Your task to perform on an android device: Set the phone to "Do not disturb". Image 0: 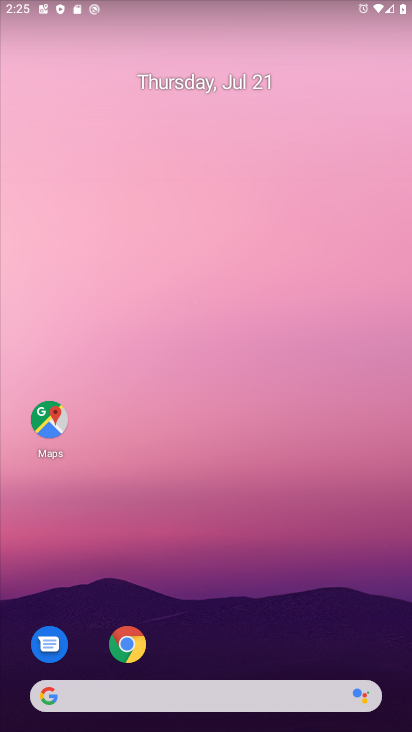
Step 0: drag from (168, 676) to (220, 283)
Your task to perform on an android device: Set the phone to "Do not disturb". Image 1: 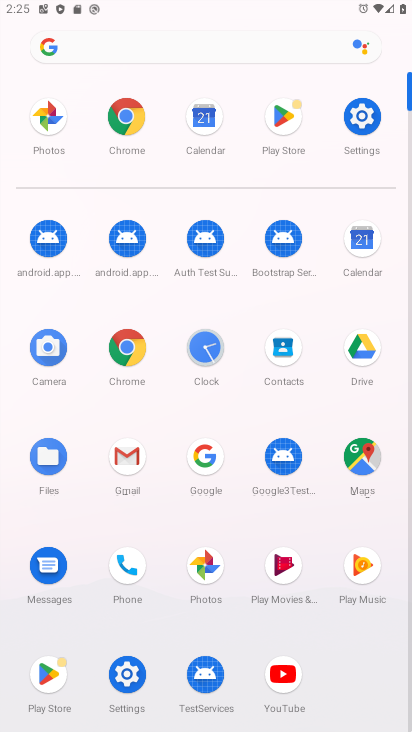
Step 1: click (359, 135)
Your task to perform on an android device: Set the phone to "Do not disturb". Image 2: 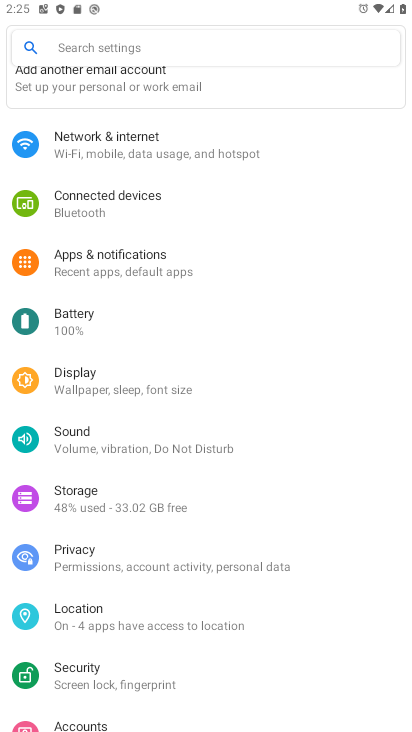
Step 2: click (109, 438)
Your task to perform on an android device: Set the phone to "Do not disturb". Image 3: 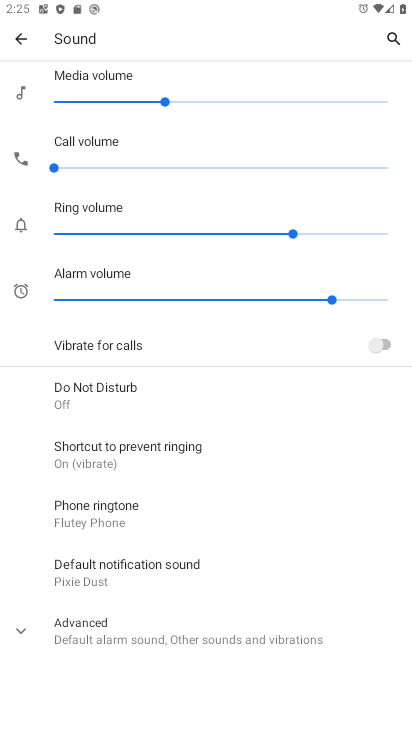
Step 3: click (137, 394)
Your task to perform on an android device: Set the phone to "Do not disturb". Image 4: 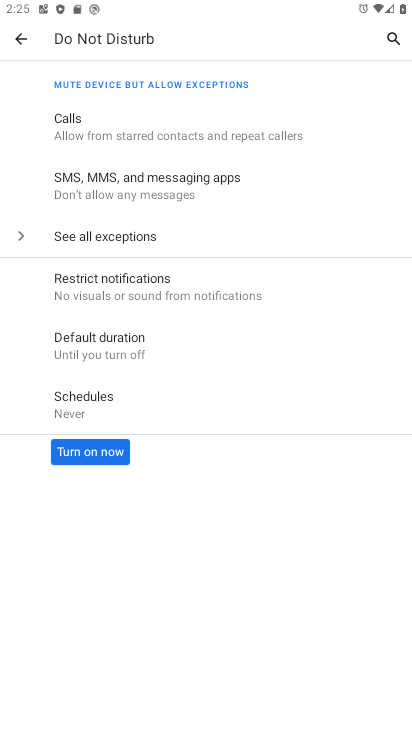
Step 4: click (100, 453)
Your task to perform on an android device: Set the phone to "Do not disturb". Image 5: 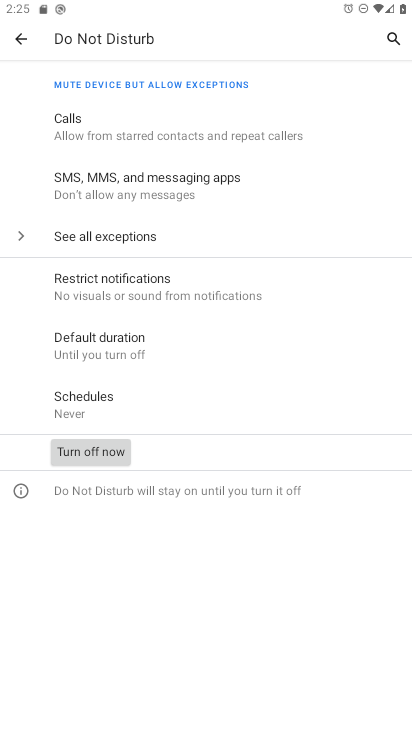
Step 5: task complete